Your task to perform on an android device: empty trash in google photos Image 0: 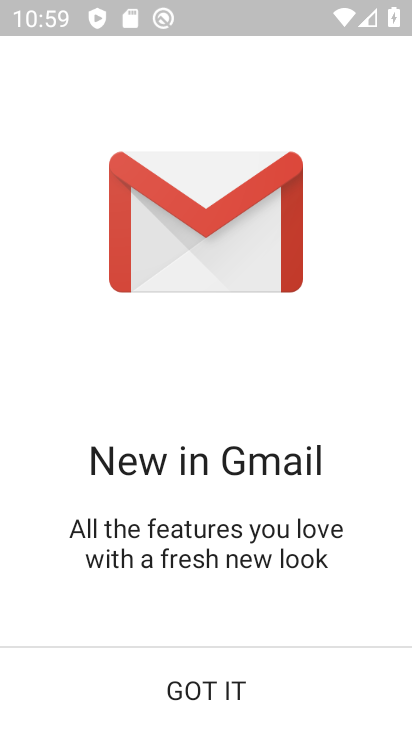
Step 0: press home button
Your task to perform on an android device: empty trash in google photos Image 1: 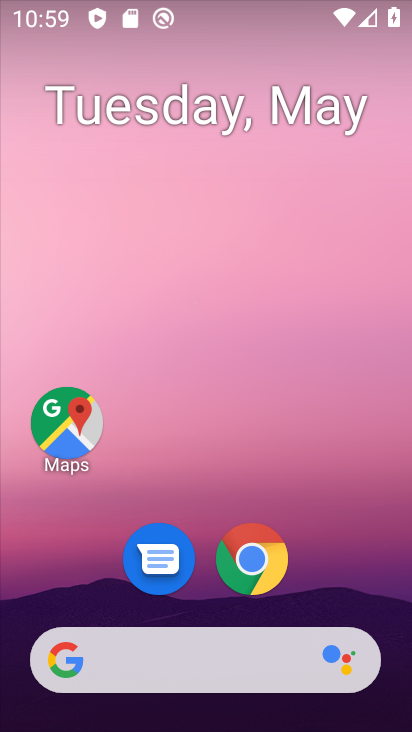
Step 1: drag from (355, 574) to (187, 4)
Your task to perform on an android device: empty trash in google photos Image 2: 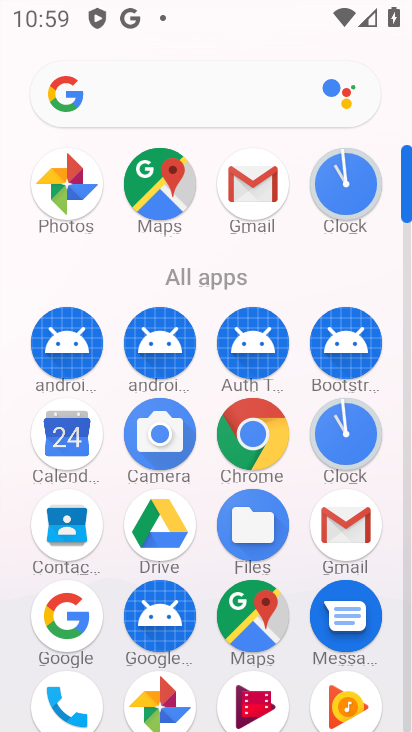
Step 2: click (75, 192)
Your task to perform on an android device: empty trash in google photos Image 3: 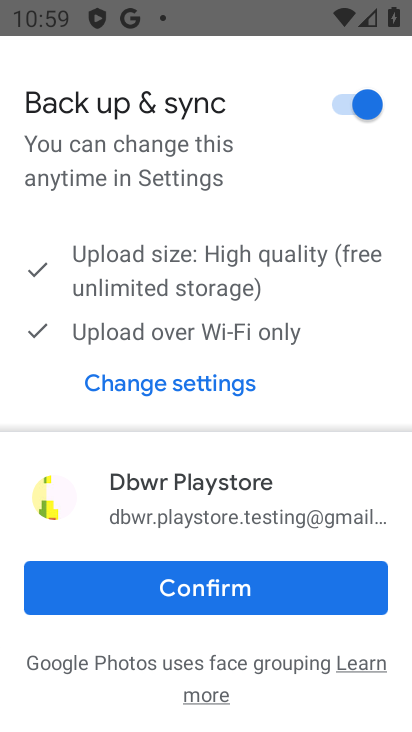
Step 3: click (231, 591)
Your task to perform on an android device: empty trash in google photos Image 4: 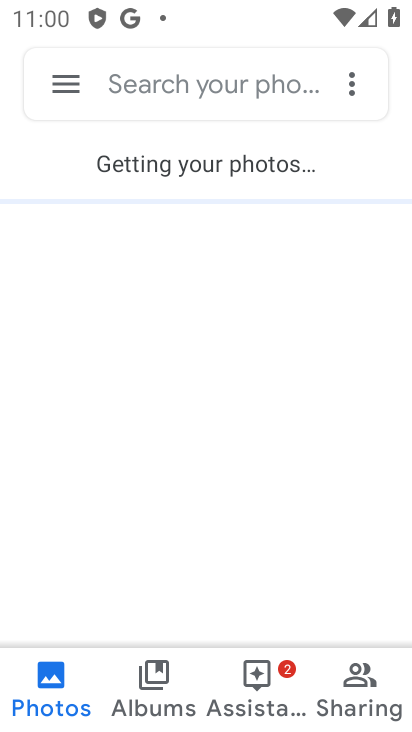
Step 4: click (55, 94)
Your task to perform on an android device: empty trash in google photos Image 5: 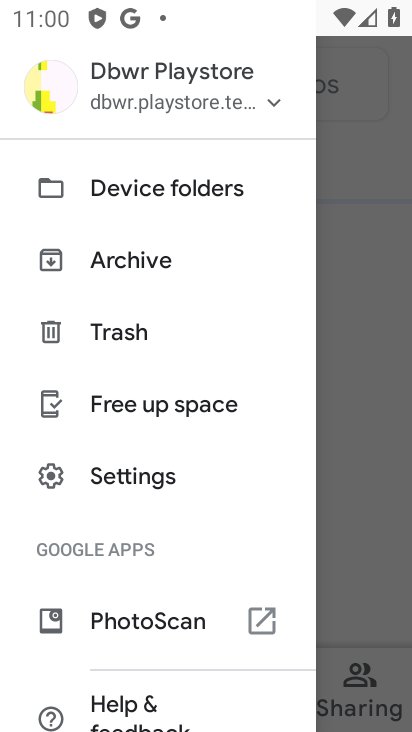
Step 5: click (116, 337)
Your task to perform on an android device: empty trash in google photos Image 6: 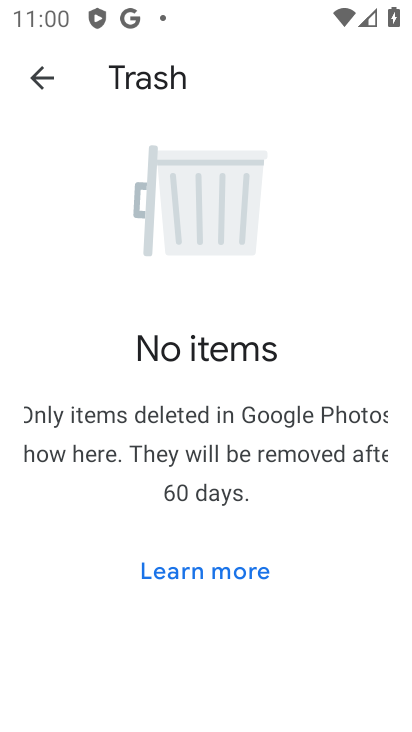
Step 6: task complete